Your task to perform on an android device: turn on priority inbox in the gmail app Image 0: 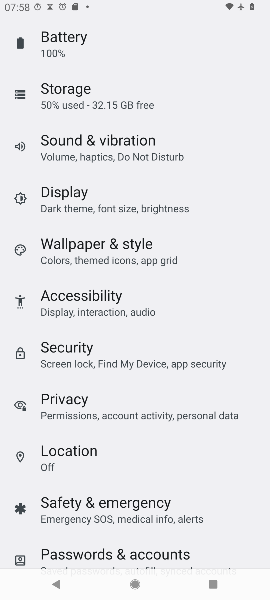
Step 0: press home button
Your task to perform on an android device: turn on priority inbox in the gmail app Image 1: 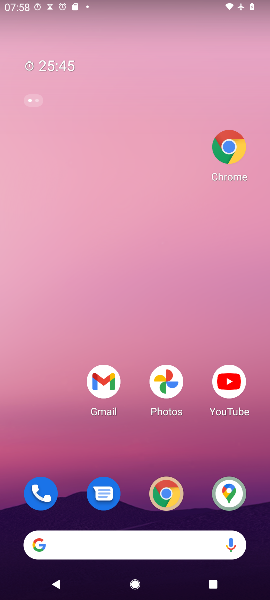
Step 1: click (96, 386)
Your task to perform on an android device: turn on priority inbox in the gmail app Image 2: 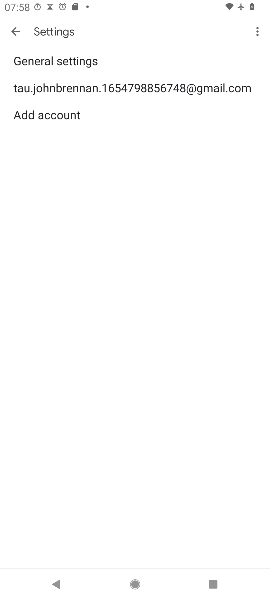
Step 2: click (115, 88)
Your task to perform on an android device: turn on priority inbox in the gmail app Image 3: 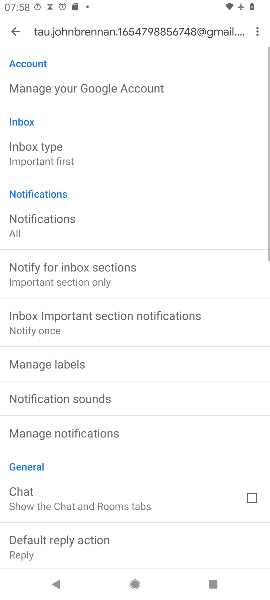
Step 3: click (33, 156)
Your task to perform on an android device: turn on priority inbox in the gmail app Image 4: 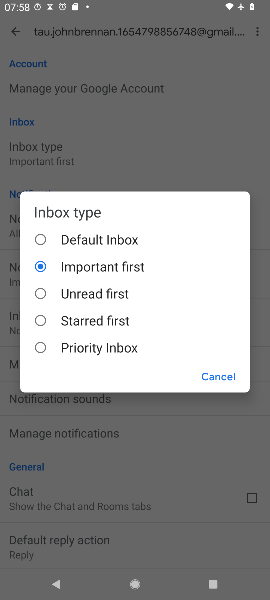
Step 4: click (35, 349)
Your task to perform on an android device: turn on priority inbox in the gmail app Image 5: 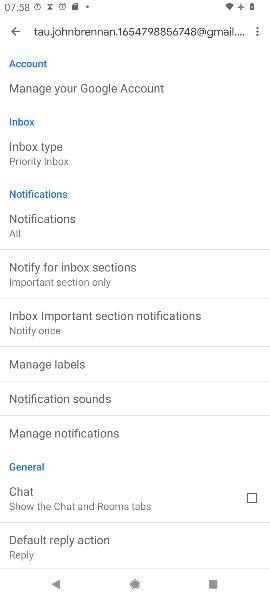
Step 5: task complete